Your task to perform on an android device: View the shopping cart on target.com. Search for apple airpods pro on target.com, select the first entry, add it to the cart, then select checkout. Image 0: 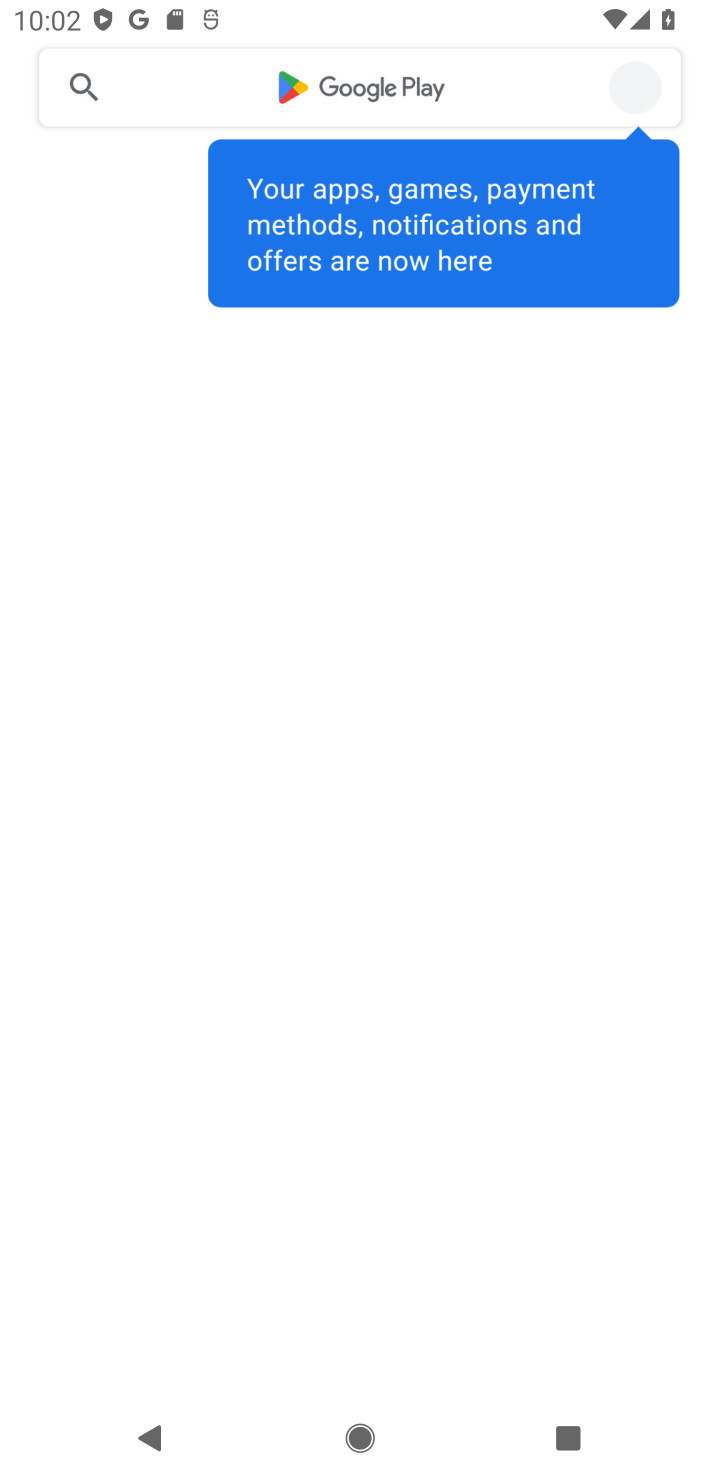
Step 0: press home button
Your task to perform on an android device: View the shopping cart on target.com. Search for apple airpods pro on target.com, select the first entry, add it to the cart, then select checkout. Image 1: 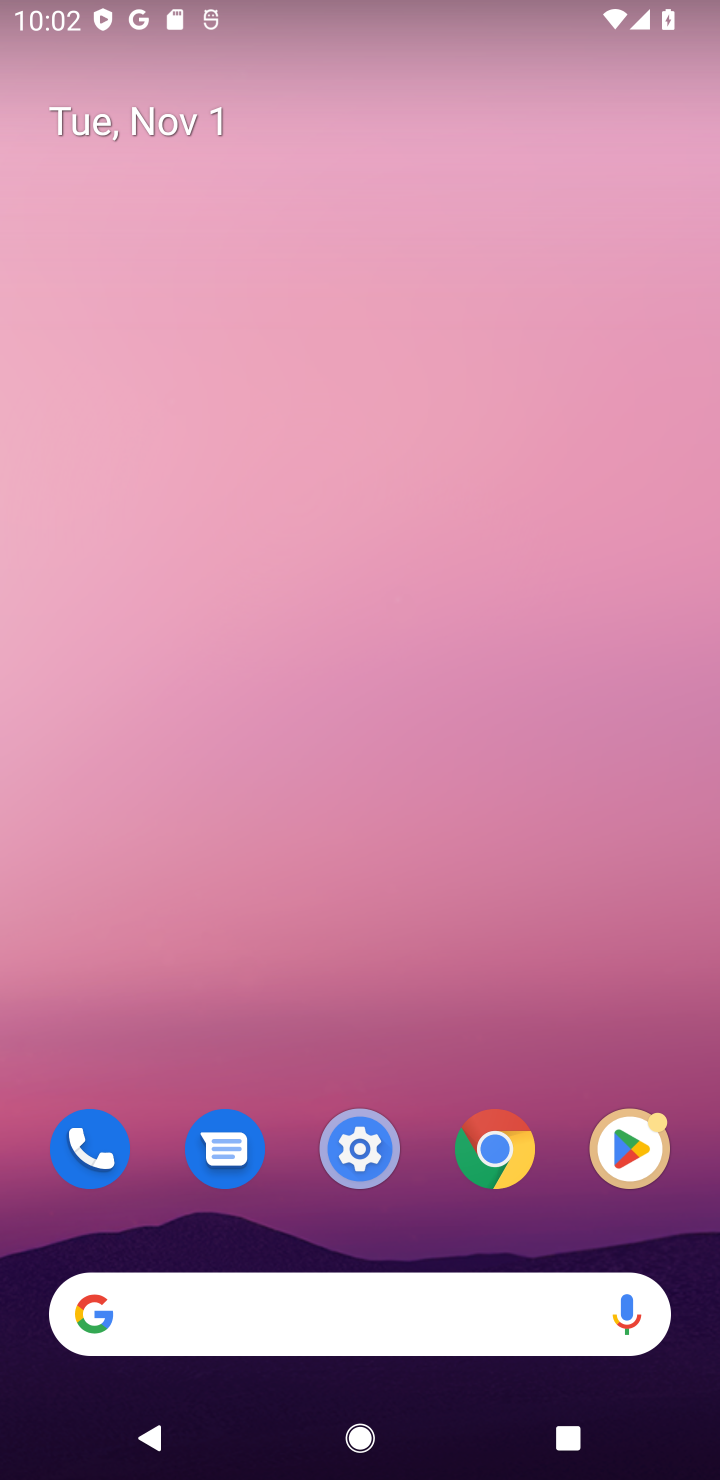
Step 1: click (150, 1318)
Your task to perform on an android device: View the shopping cart on target.com. Search for apple airpods pro on target.com, select the first entry, add it to the cart, then select checkout. Image 2: 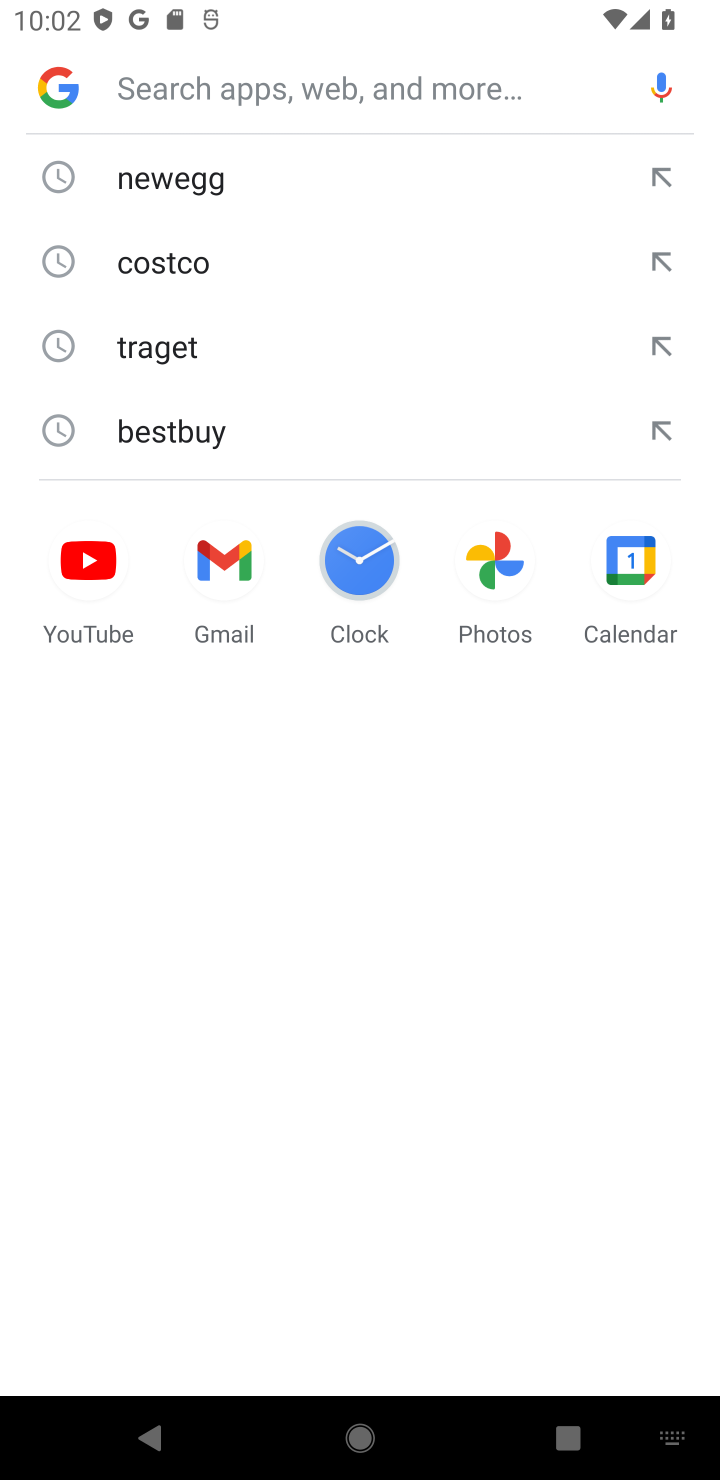
Step 2: type "target.com"
Your task to perform on an android device: View the shopping cart on target.com. Search for apple airpods pro on target.com, select the first entry, add it to the cart, then select checkout. Image 3: 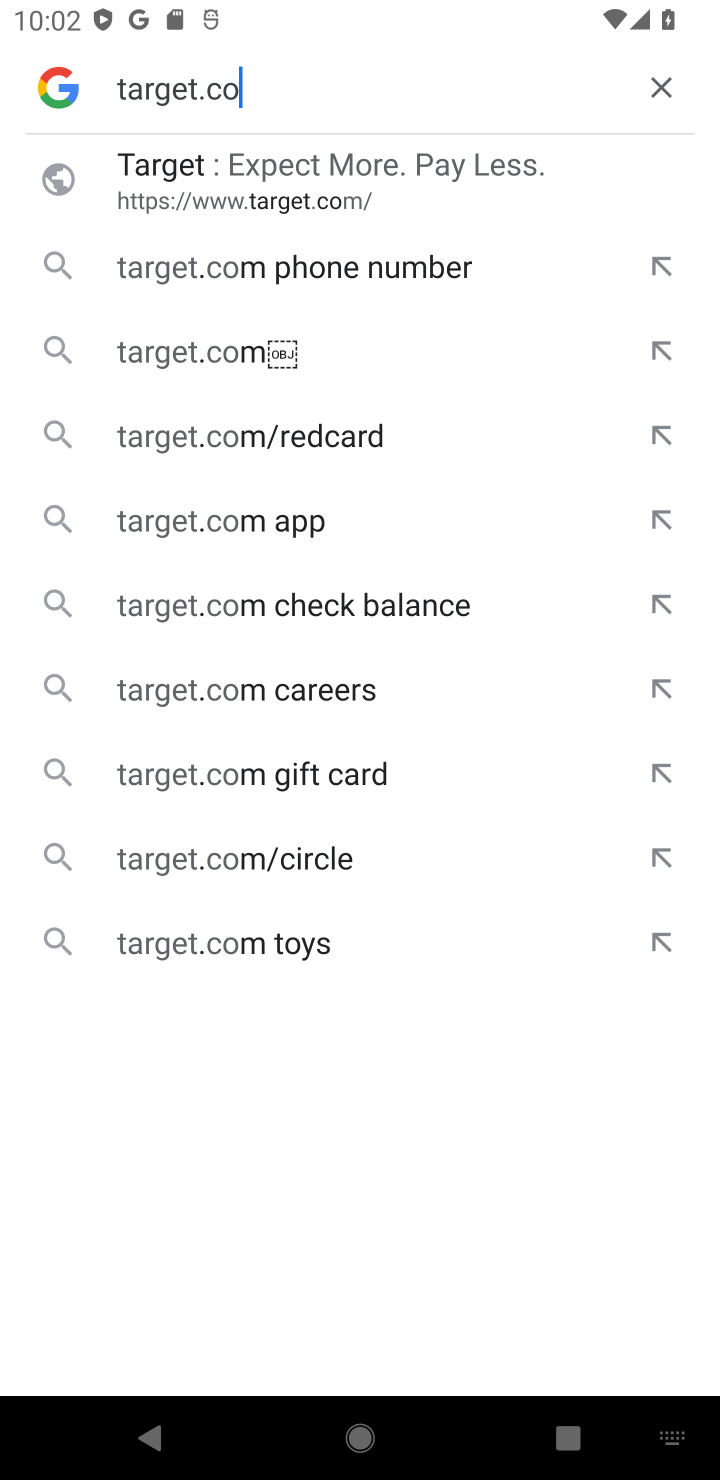
Step 3: press enter
Your task to perform on an android device: View the shopping cart on target.com. Search for apple airpods pro on target.com, select the first entry, add it to the cart, then select checkout. Image 4: 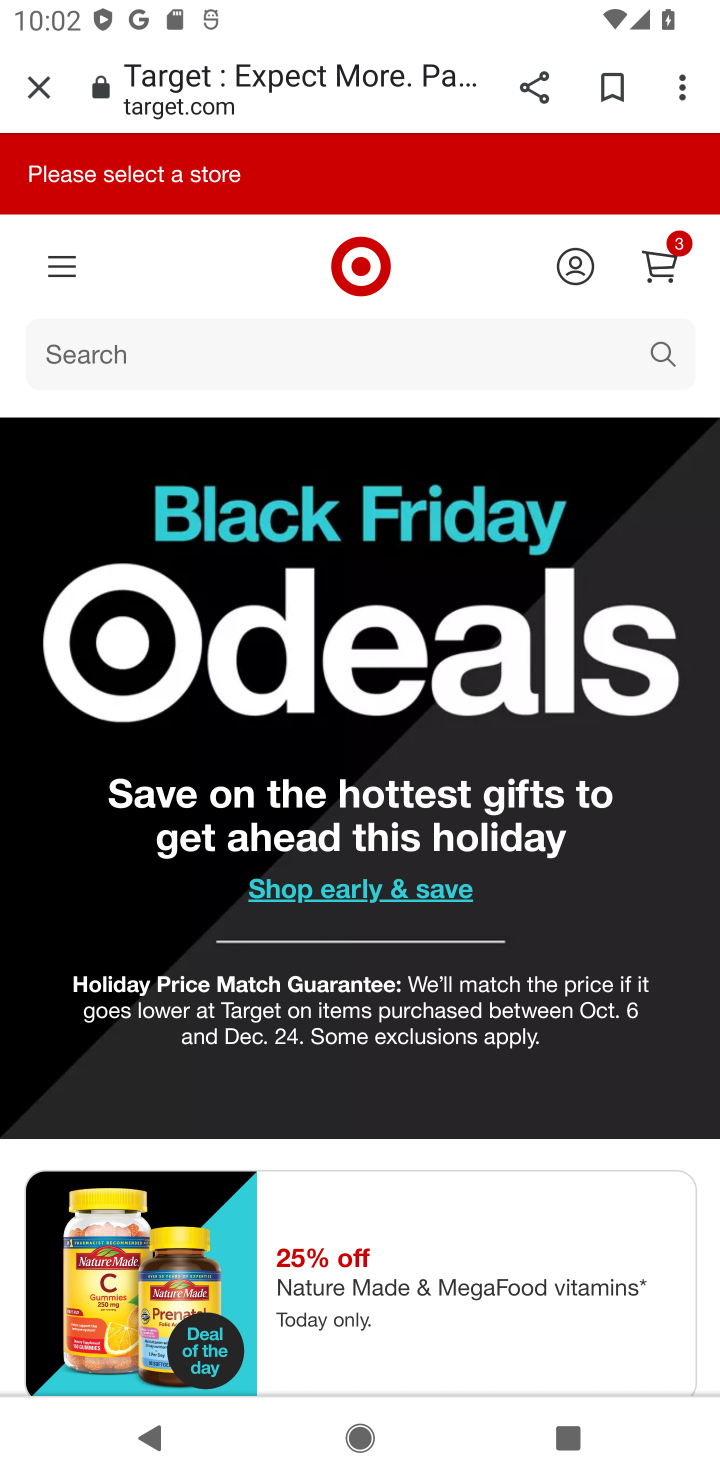
Step 4: click (113, 354)
Your task to perform on an android device: View the shopping cart on target.com. Search for apple airpods pro on target.com, select the first entry, add it to the cart, then select checkout. Image 5: 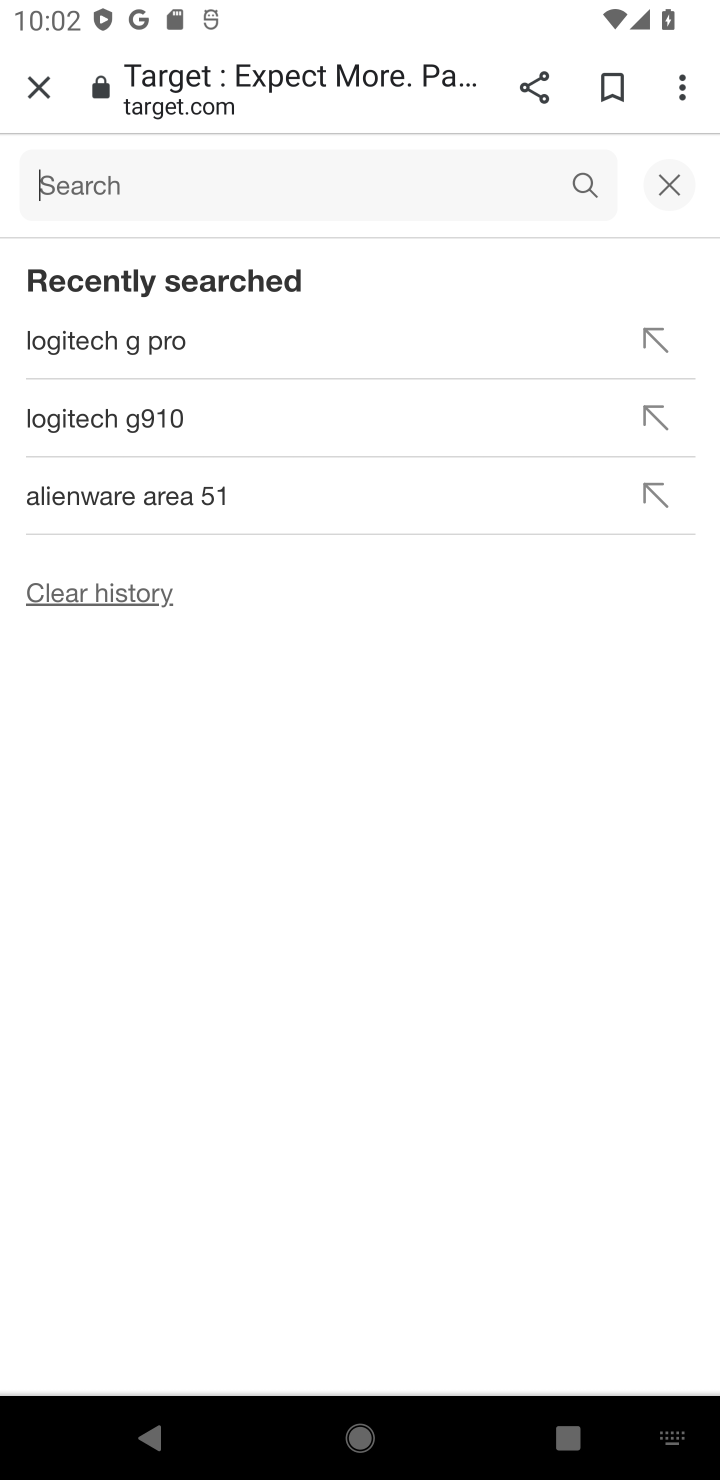
Step 5: type "apple airpods pro "
Your task to perform on an android device: View the shopping cart on target.com. Search for apple airpods pro on target.com, select the first entry, add it to the cart, then select checkout. Image 6: 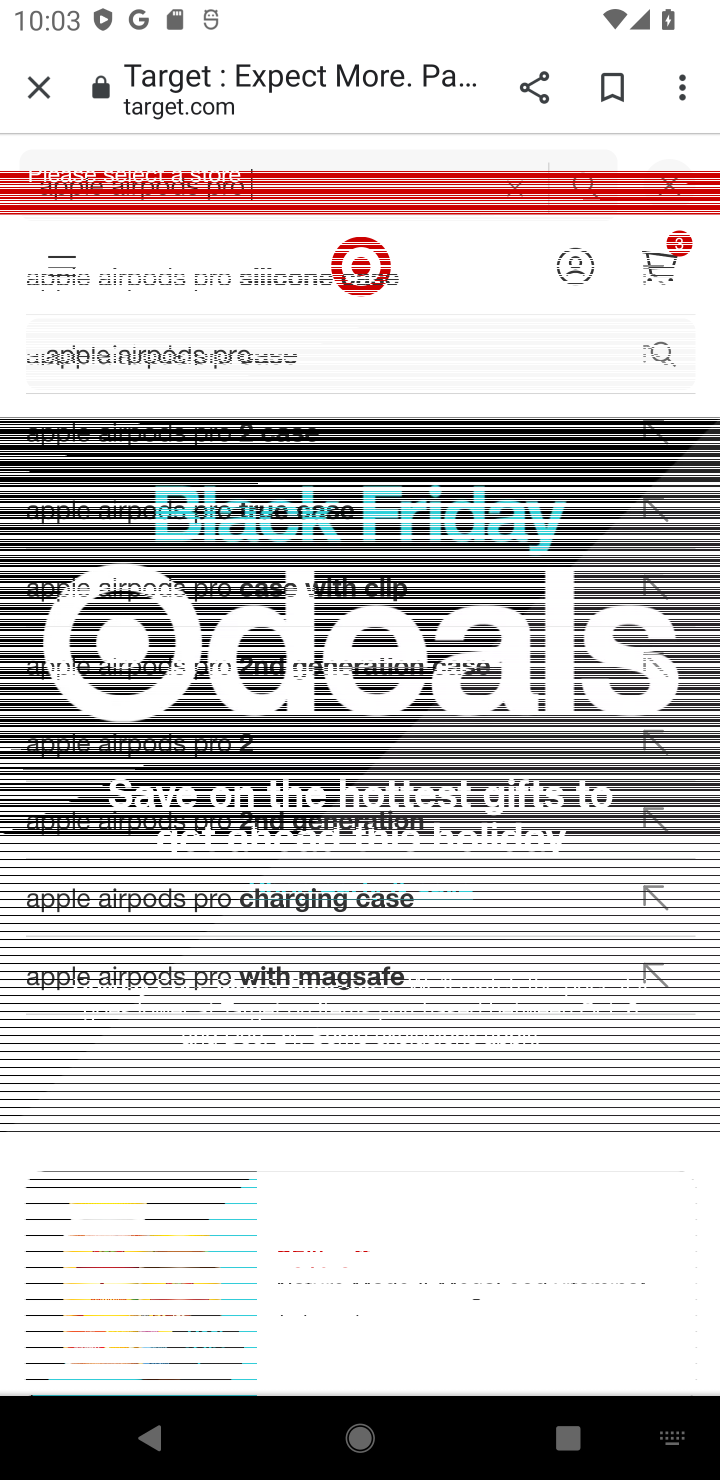
Step 6: press enter
Your task to perform on an android device: View the shopping cart on target.com. Search for apple airpods pro on target.com, select the first entry, add it to the cart, then select checkout. Image 7: 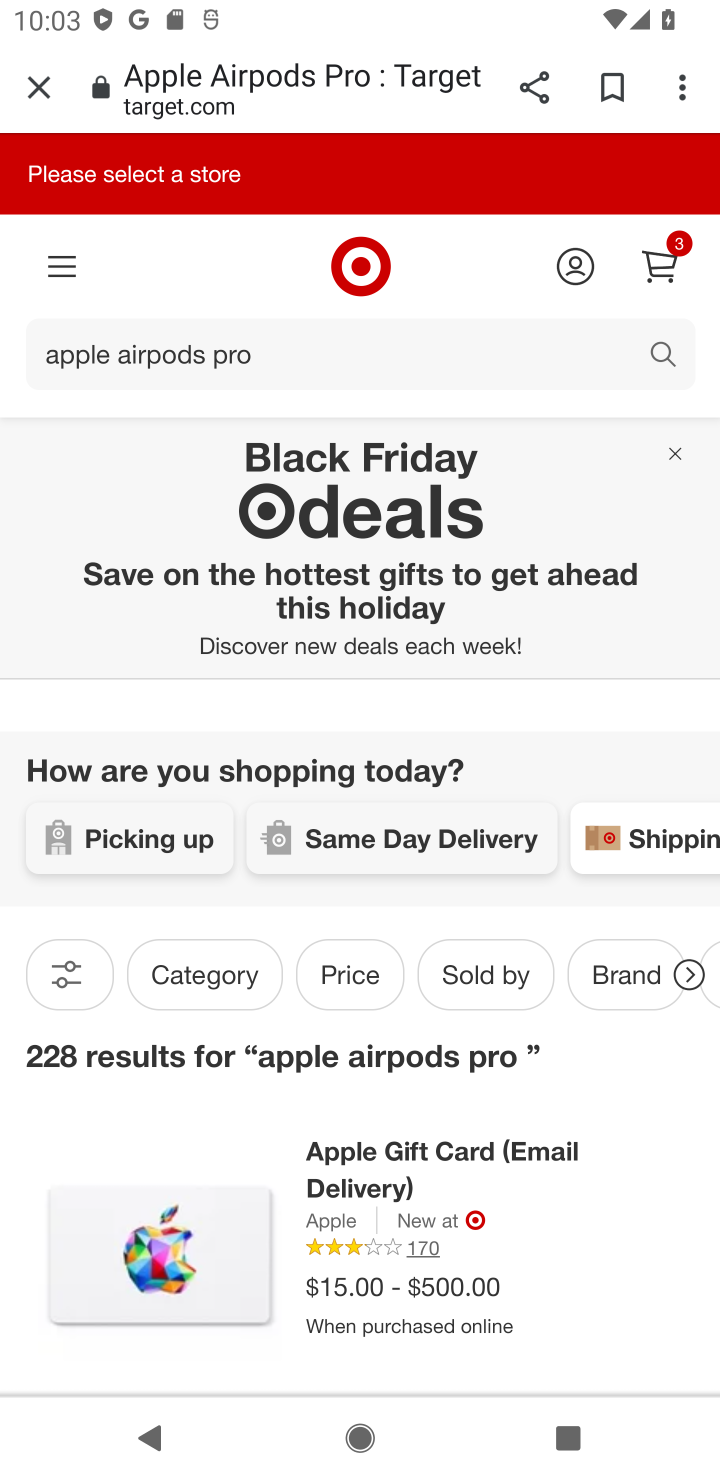
Step 7: click (395, 1254)
Your task to perform on an android device: View the shopping cart on target.com. Search for apple airpods pro on target.com, select the first entry, add it to the cart, then select checkout. Image 8: 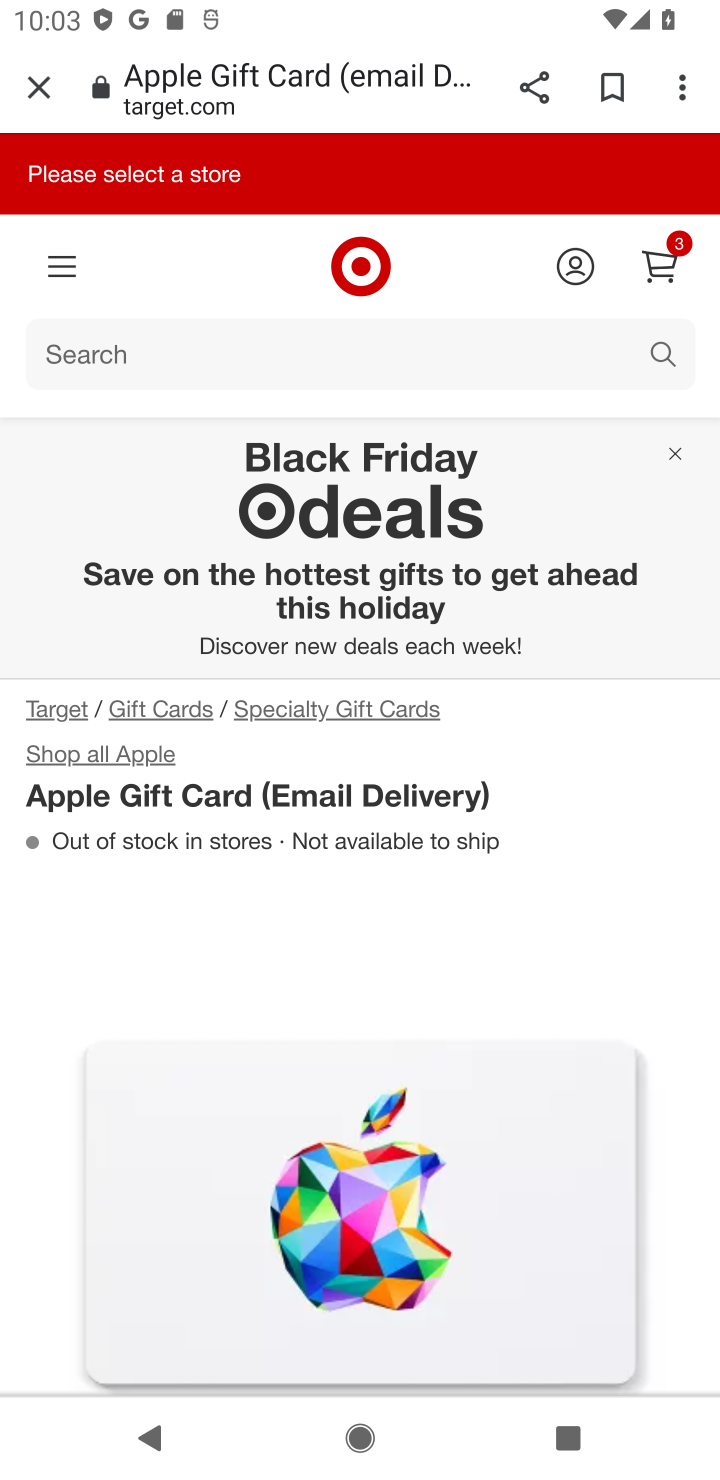
Step 8: task complete